Your task to perform on an android device: turn on the 24-hour format for clock Image 0: 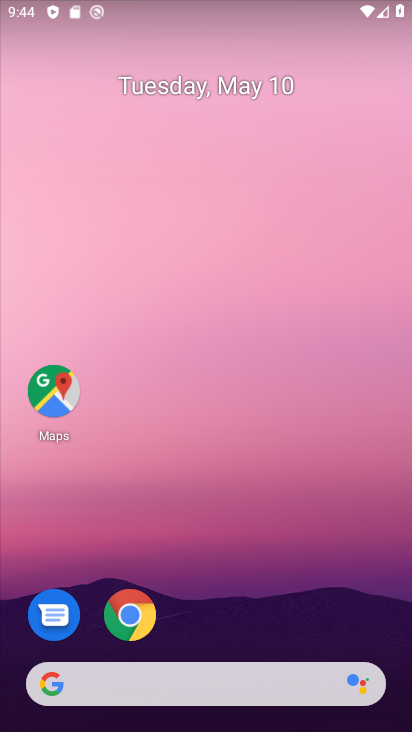
Step 0: drag from (315, 328) to (362, 0)
Your task to perform on an android device: turn on the 24-hour format for clock Image 1: 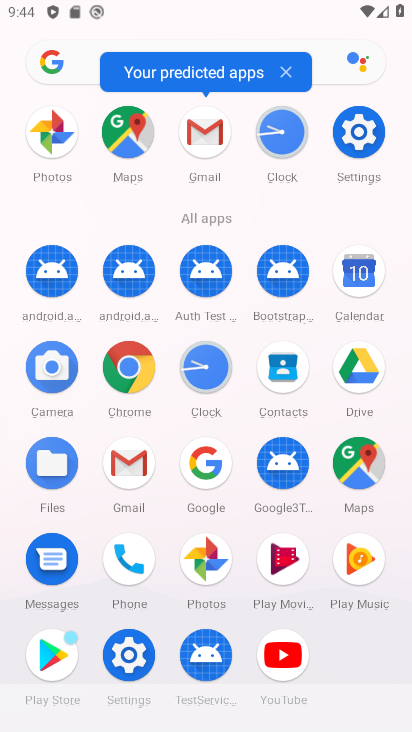
Step 1: click (282, 129)
Your task to perform on an android device: turn on the 24-hour format for clock Image 2: 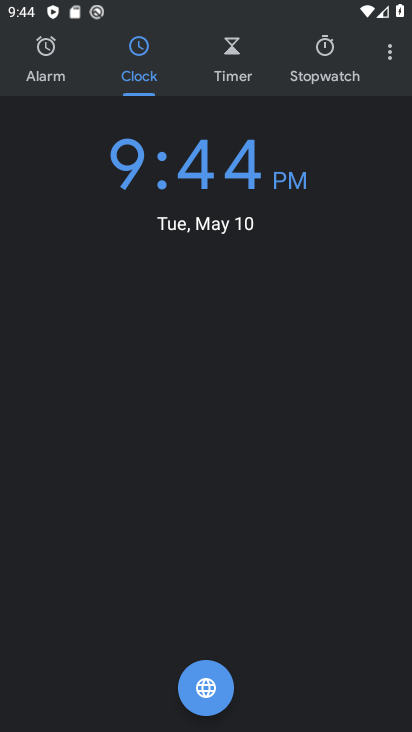
Step 2: click (388, 50)
Your task to perform on an android device: turn on the 24-hour format for clock Image 3: 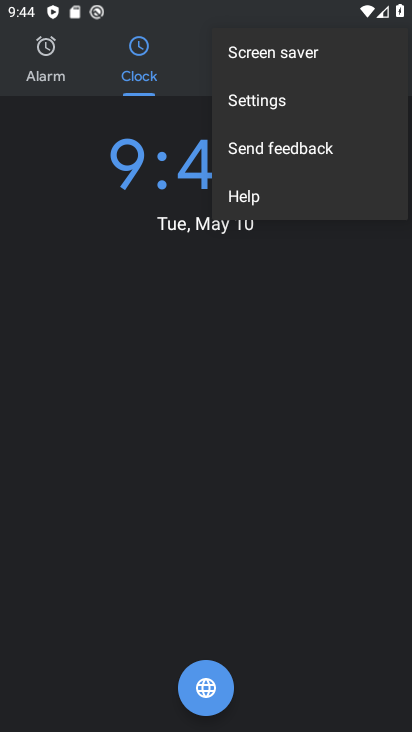
Step 3: click (280, 106)
Your task to perform on an android device: turn on the 24-hour format for clock Image 4: 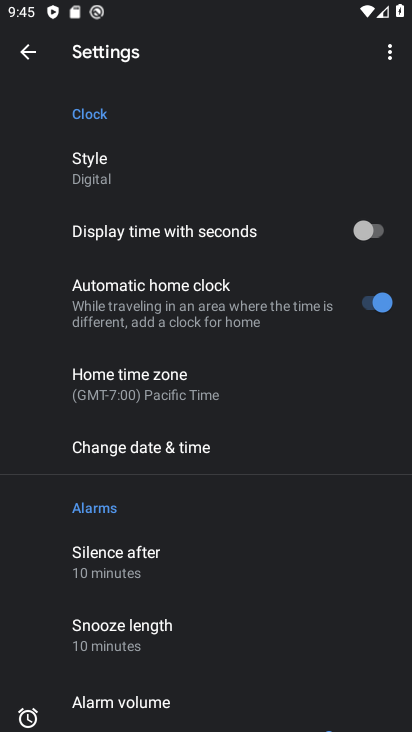
Step 4: drag from (193, 528) to (273, 69)
Your task to perform on an android device: turn on the 24-hour format for clock Image 5: 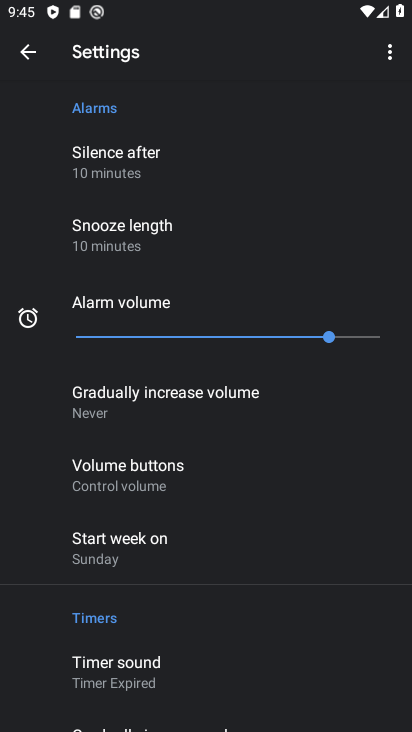
Step 5: drag from (218, 572) to (317, 68)
Your task to perform on an android device: turn on the 24-hour format for clock Image 6: 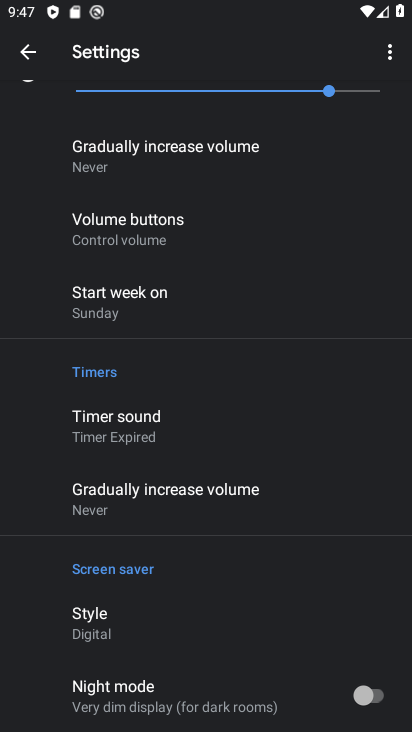
Step 6: drag from (180, 599) to (296, 171)
Your task to perform on an android device: turn on the 24-hour format for clock Image 7: 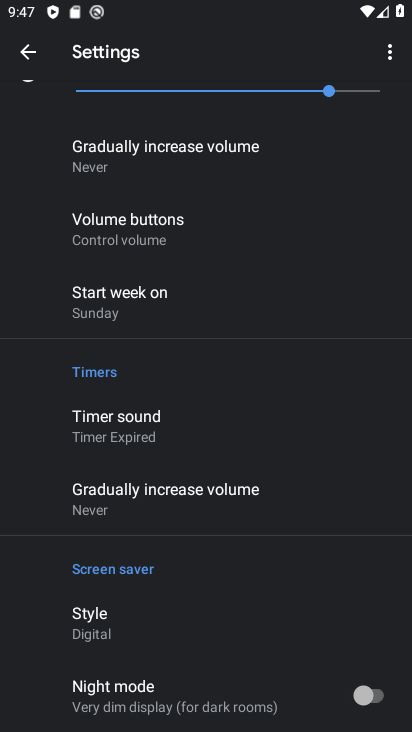
Step 7: drag from (179, 217) to (210, 578)
Your task to perform on an android device: turn on the 24-hour format for clock Image 8: 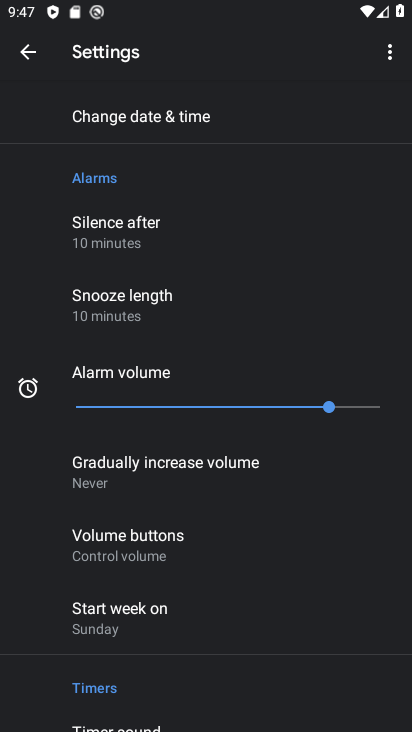
Step 8: click (134, 111)
Your task to perform on an android device: turn on the 24-hour format for clock Image 9: 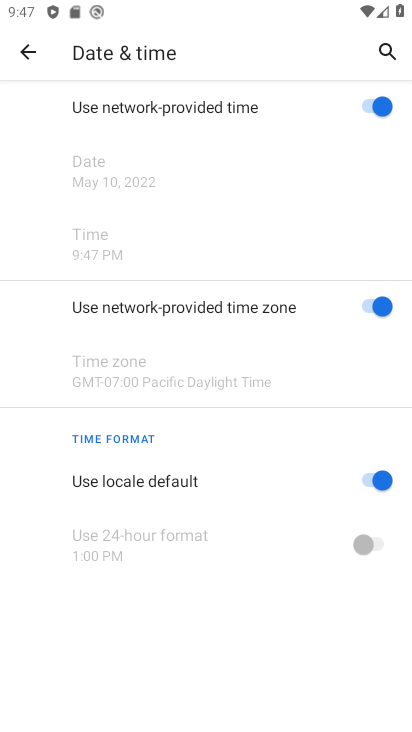
Step 9: click (369, 482)
Your task to perform on an android device: turn on the 24-hour format for clock Image 10: 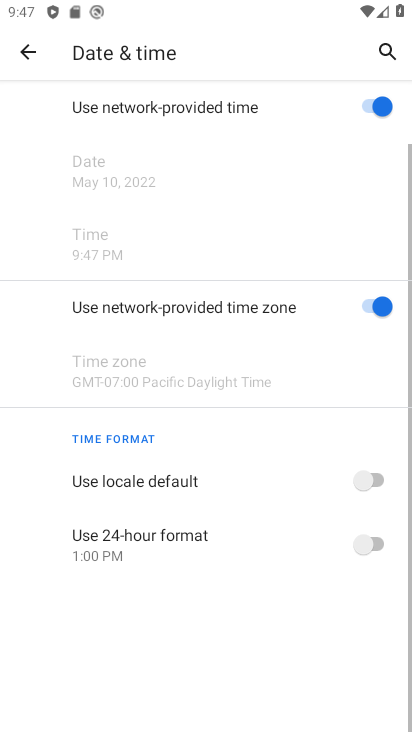
Step 10: click (363, 547)
Your task to perform on an android device: turn on the 24-hour format for clock Image 11: 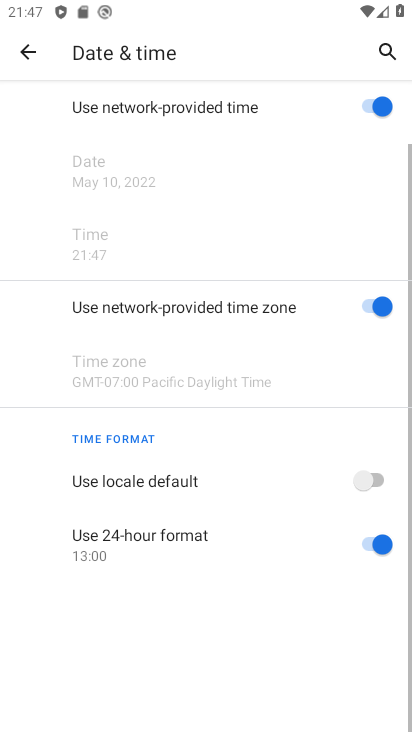
Step 11: task complete